Your task to perform on an android device: manage bookmarks in the chrome app Image 0: 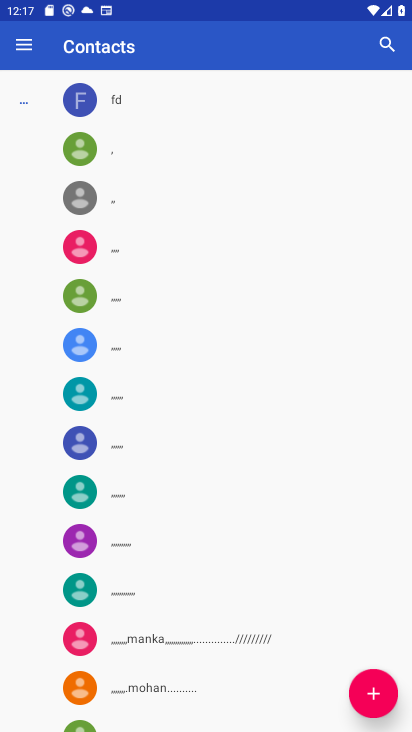
Step 0: press home button
Your task to perform on an android device: manage bookmarks in the chrome app Image 1: 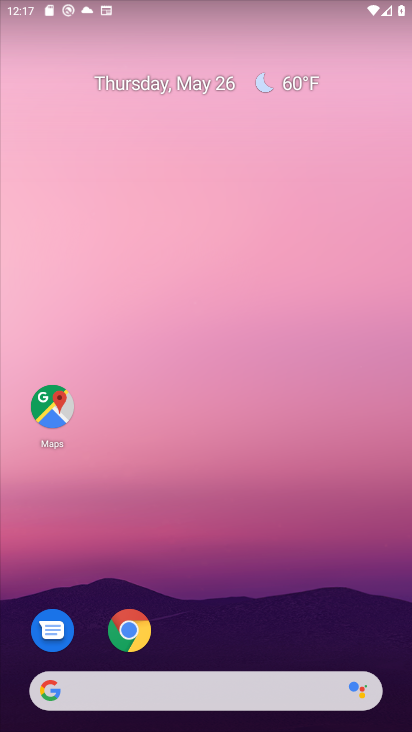
Step 1: drag from (347, 549) to (306, 8)
Your task to perform on an android device: manage bookmarks in the chrome app Image 2: 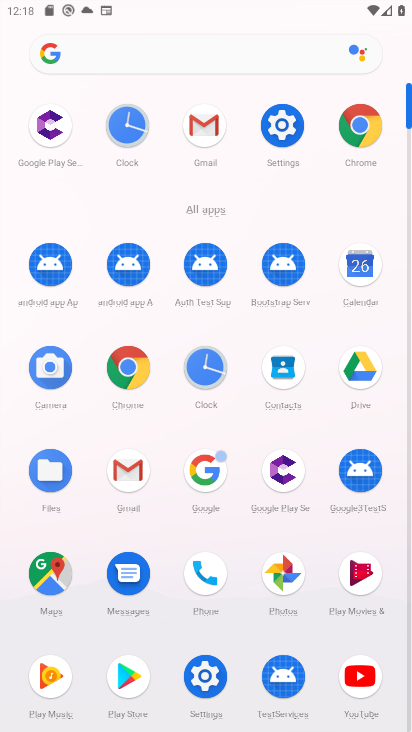
Step 2: click (368, 124)
Your task to perform on an android device: manage bookmarks in the chrome app Image 3: 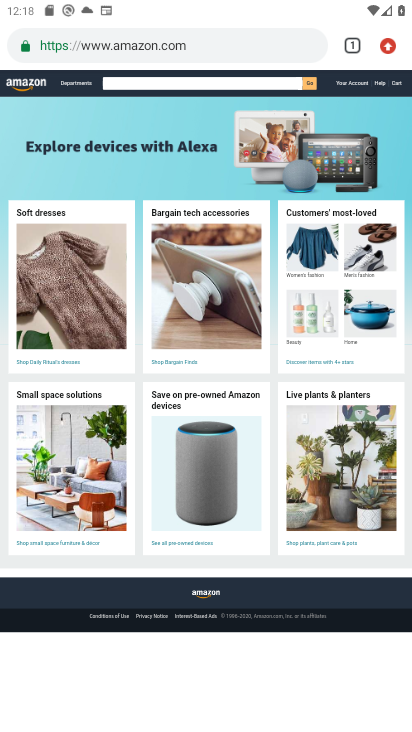
Step 3: task complete